Your task to perform on an android device: What is the news today? Image 0: 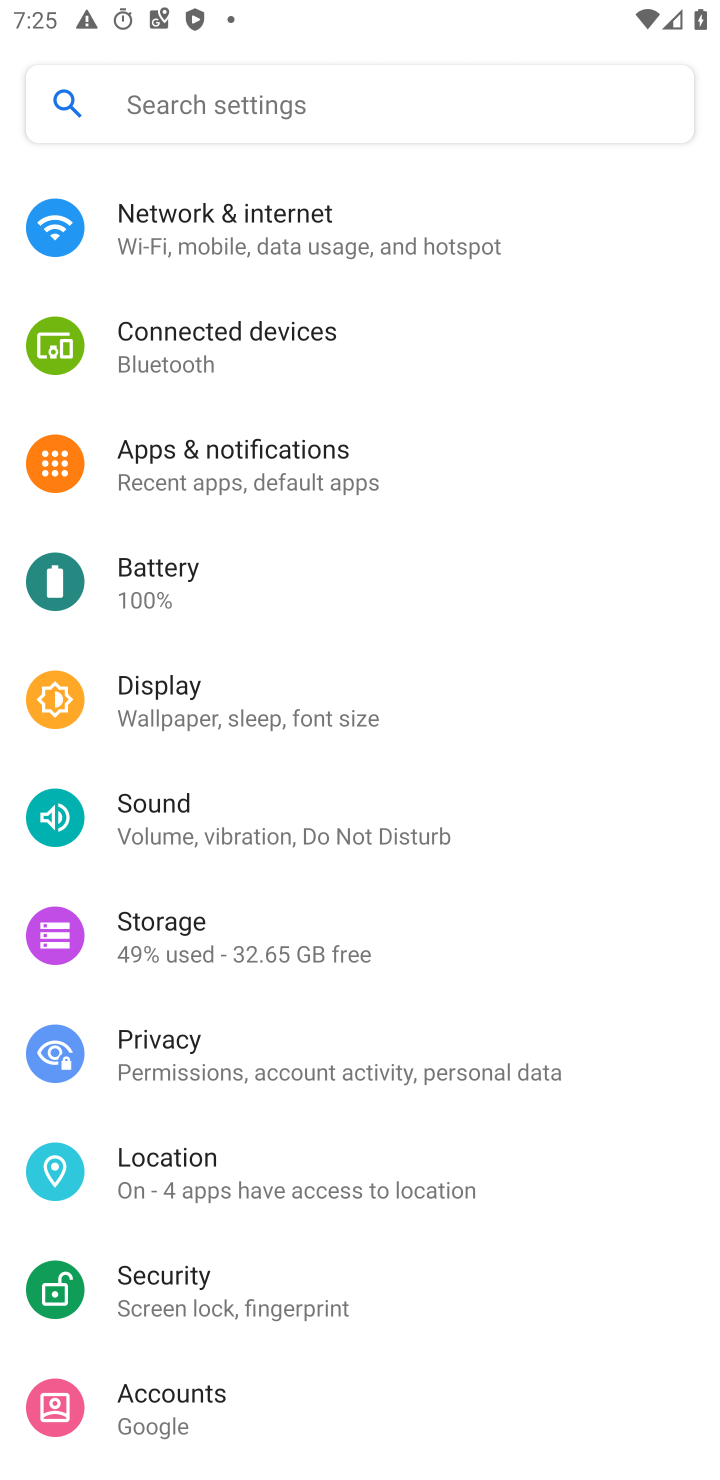
Step 0: press home button
Your task to perform on an android device: What is the news today? Image 1: 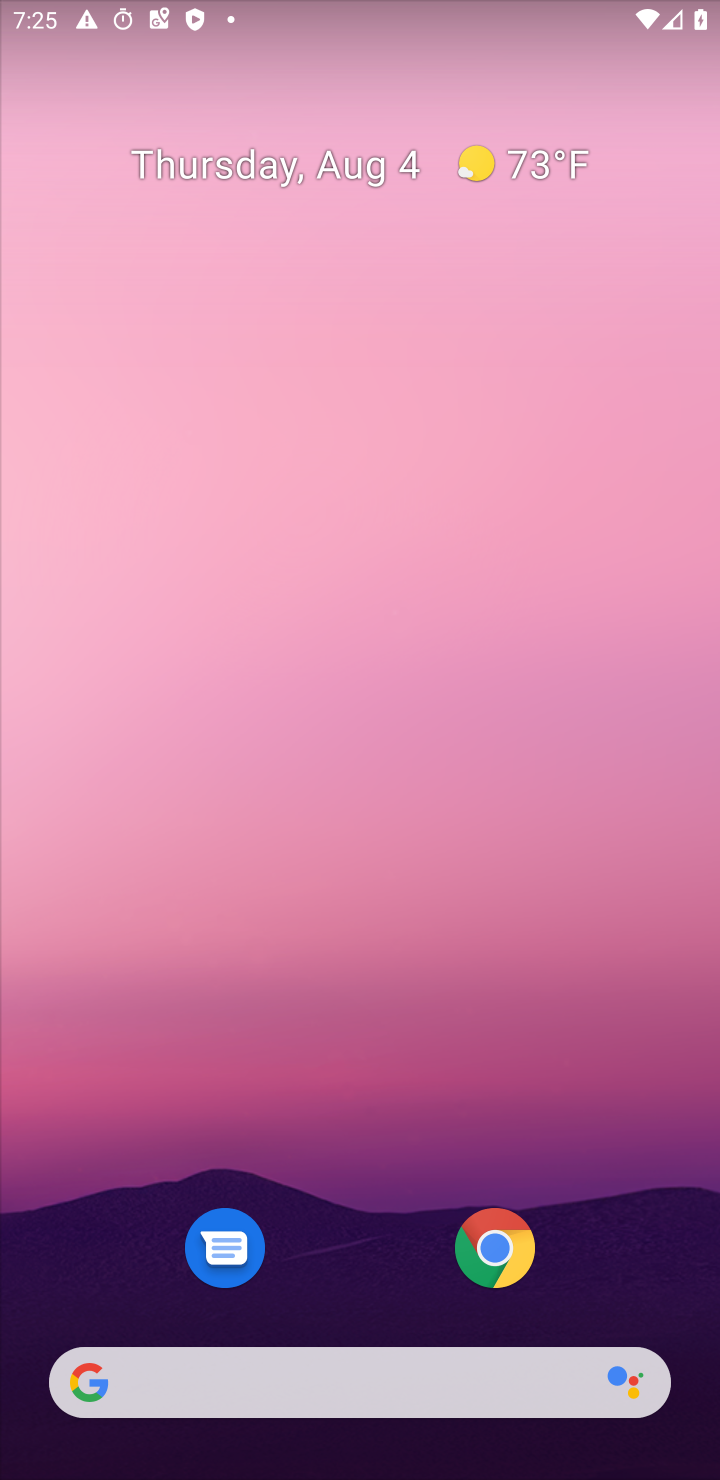
Step 1: click (365, 1369)
Your task to perform on an android device: What is the news today? Image 2: 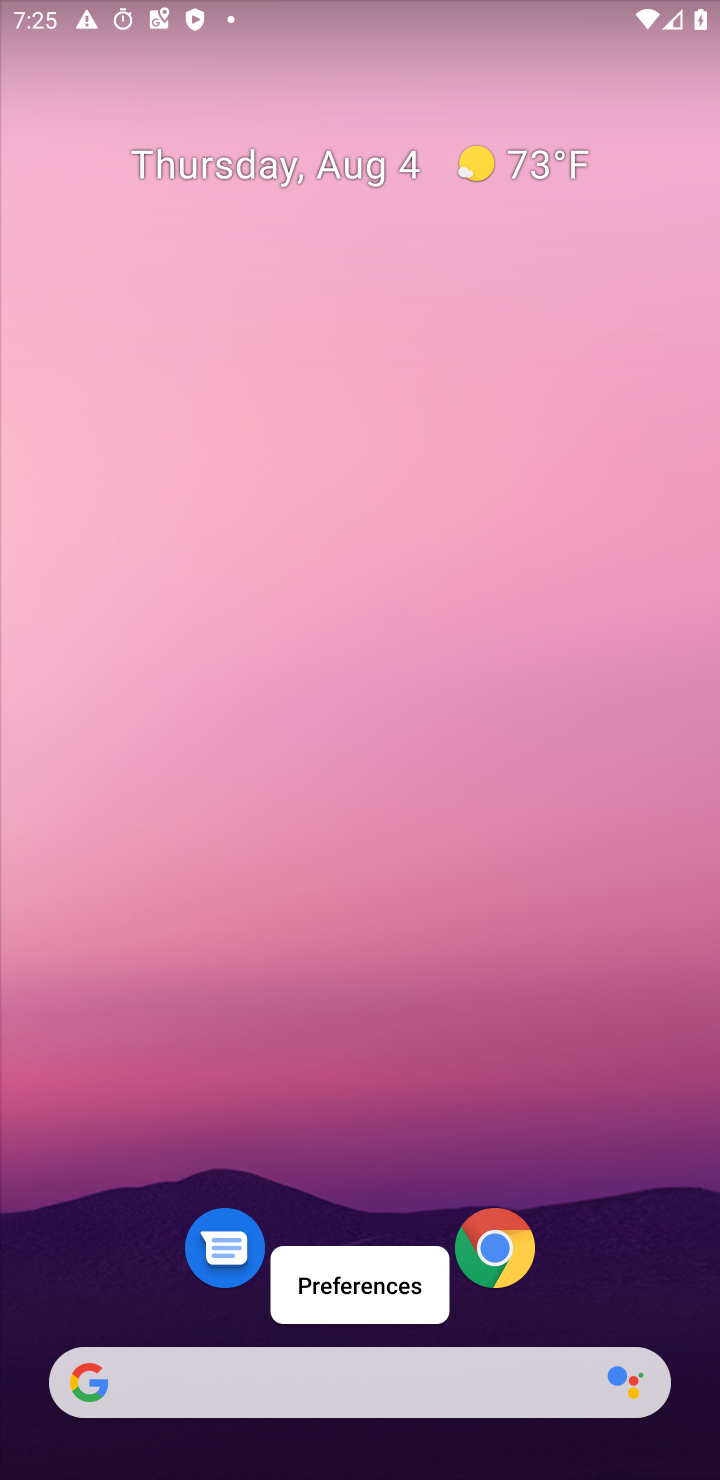
Step 2: click (286, 1373)
Your task to perform on an android device: What is the news today? Image 3: 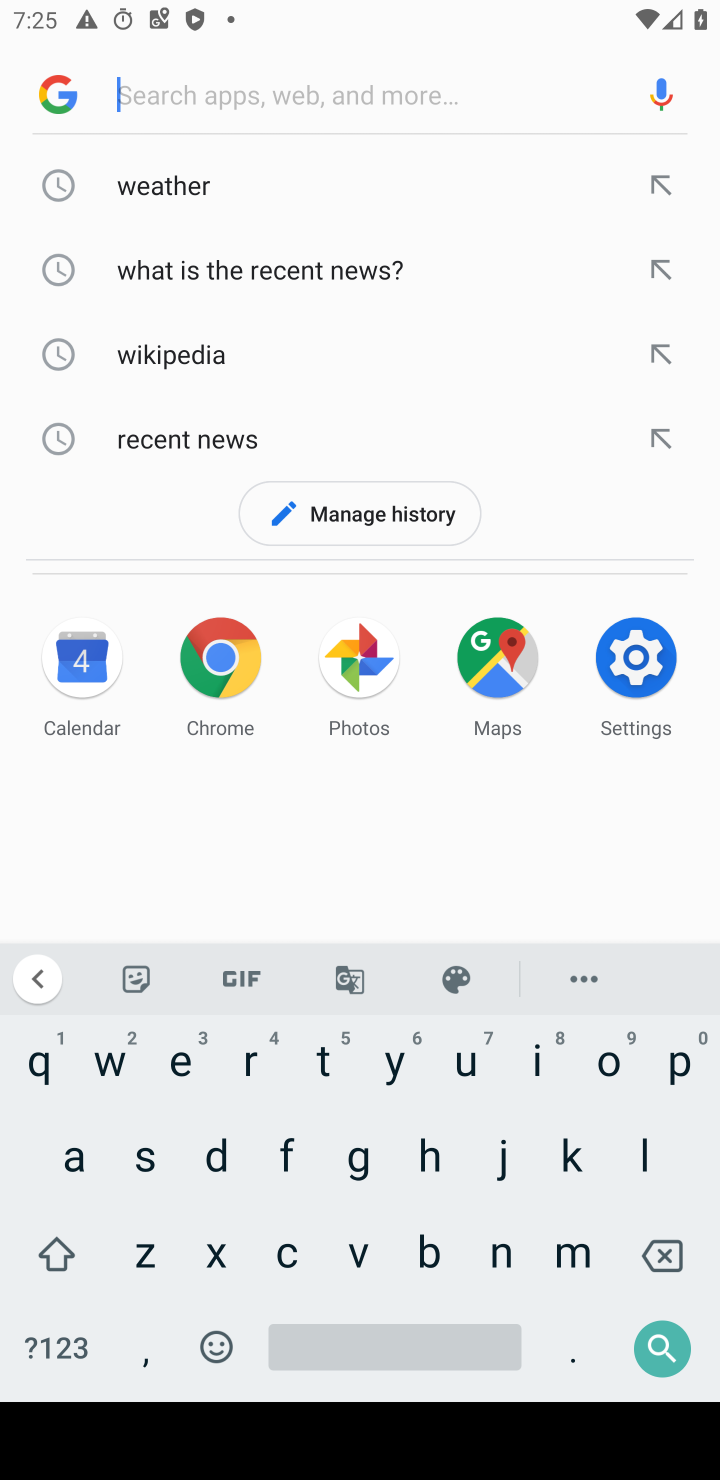
Step 3: click (506, 1265)
Your task to perform on an android device: What is the news today? Image 4: 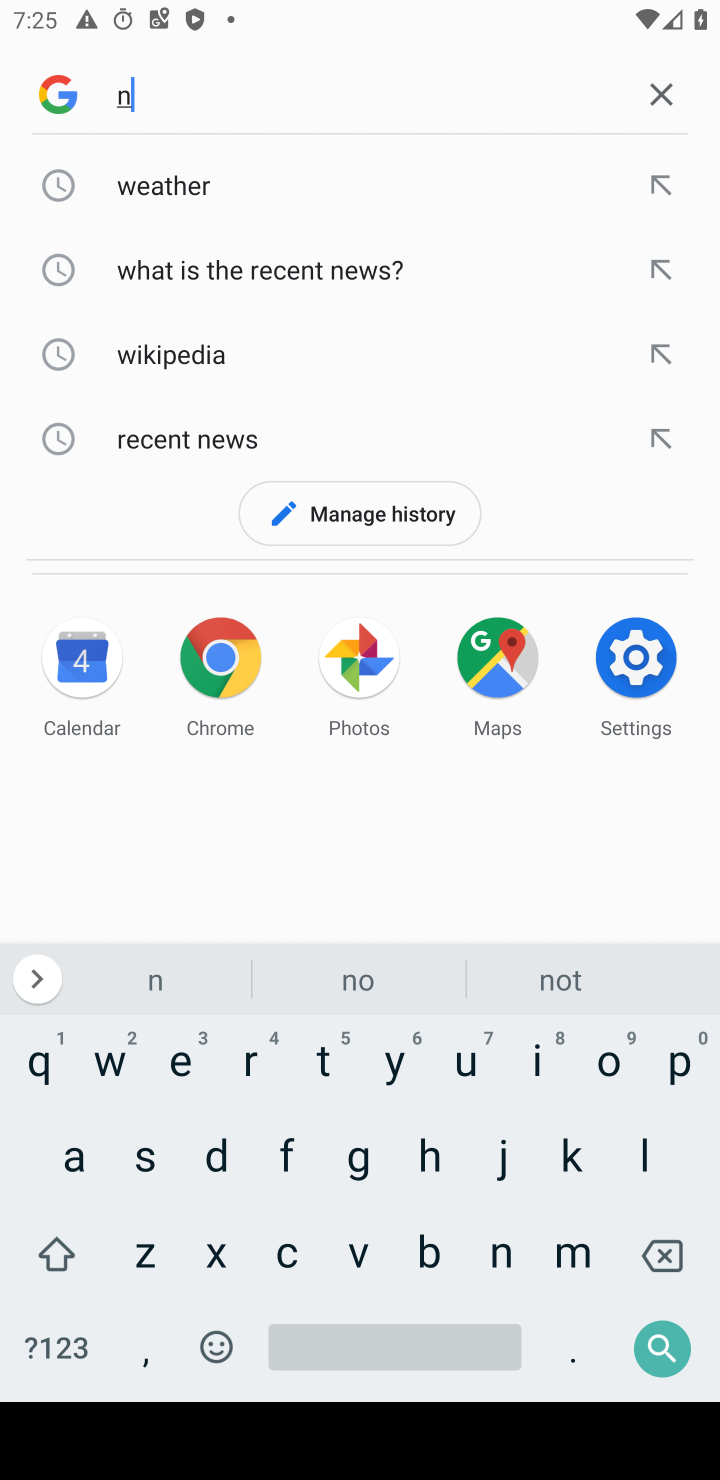
Step 4: click (176, 1049)
Your task to perform on an android device: What is the news today? Image 5: 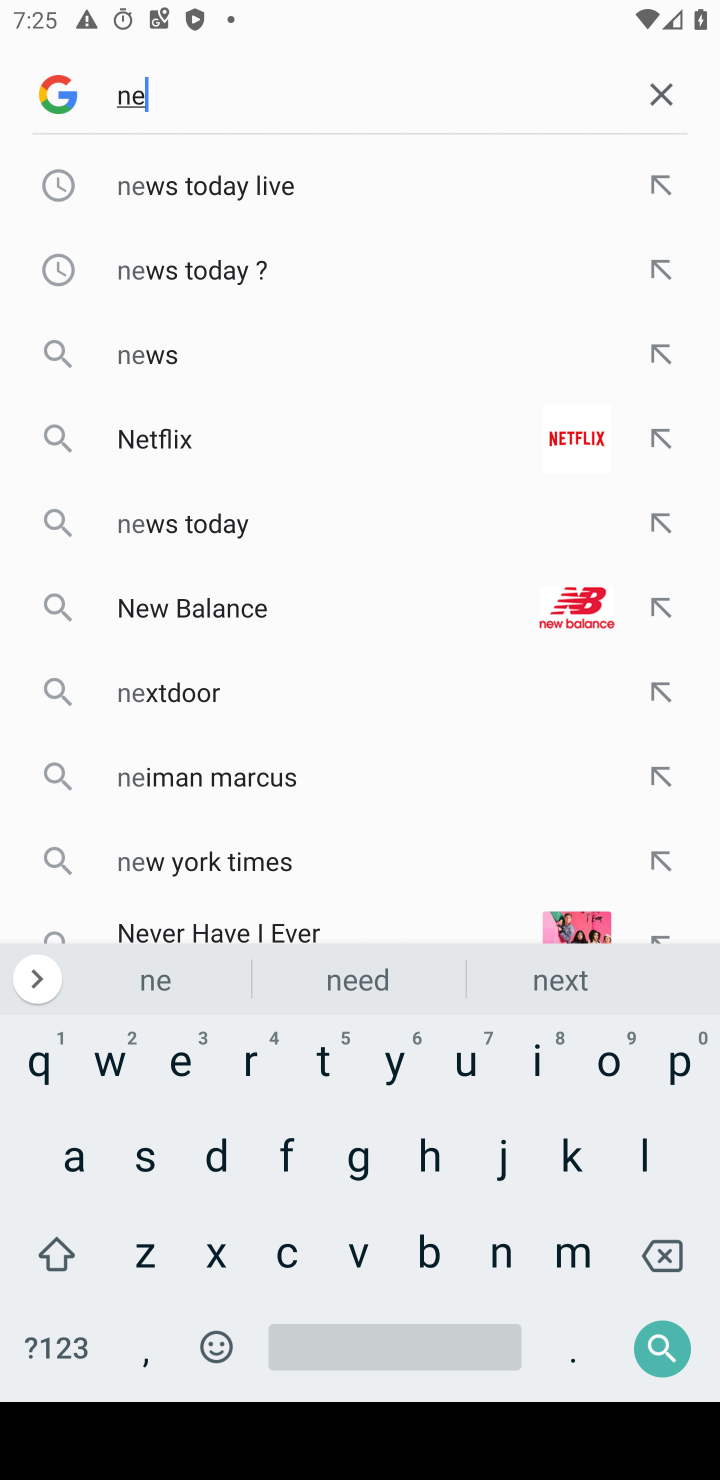
Step 5: click (202, 260)
Your task to perform on an android device: What is the news today? Image 6: 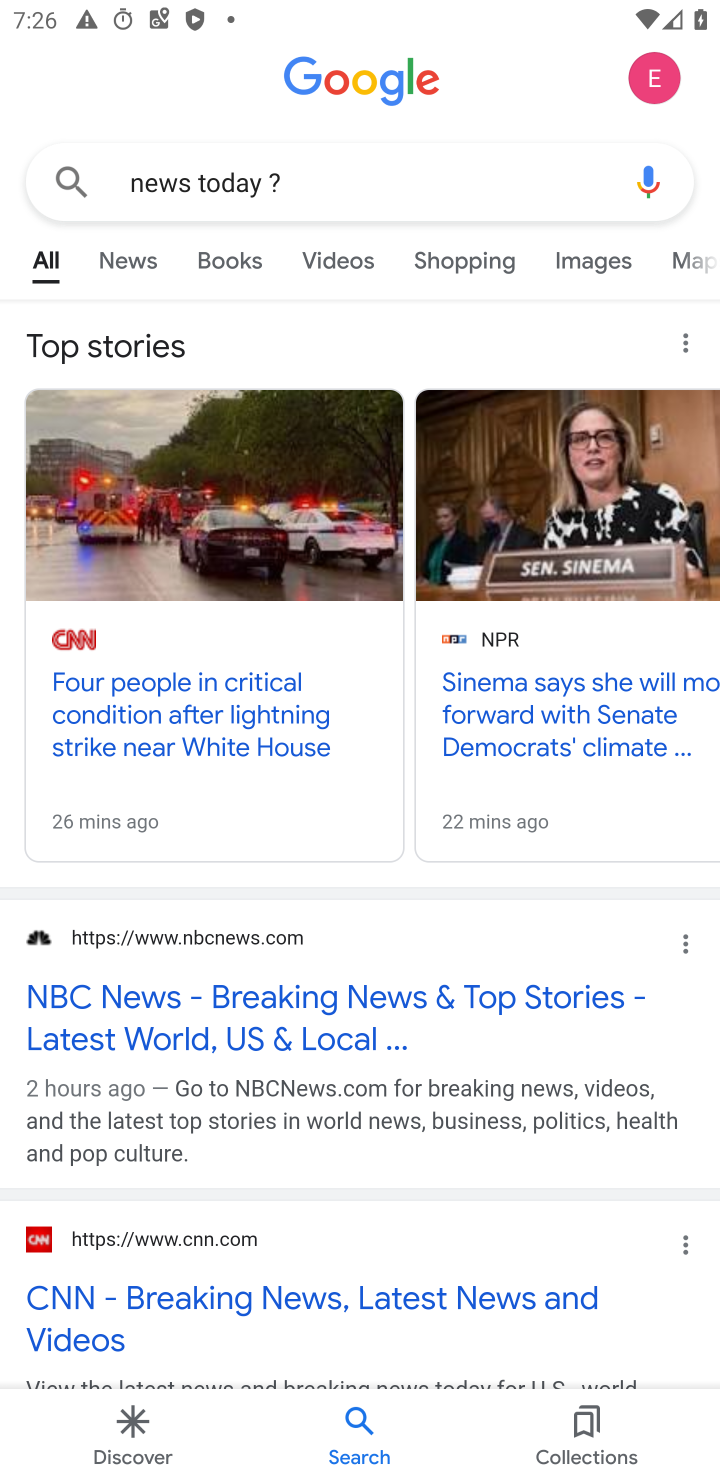
Step 6: task complete